Your task to perform on an android device: Go to network settings Image 0: 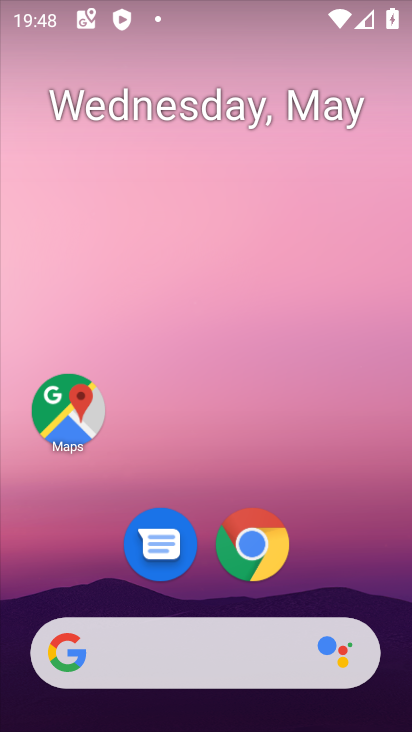
Step 0: drag from (212, 9) to (217, 636)
Your task to perform on an android device: Go to network settings Image 1: 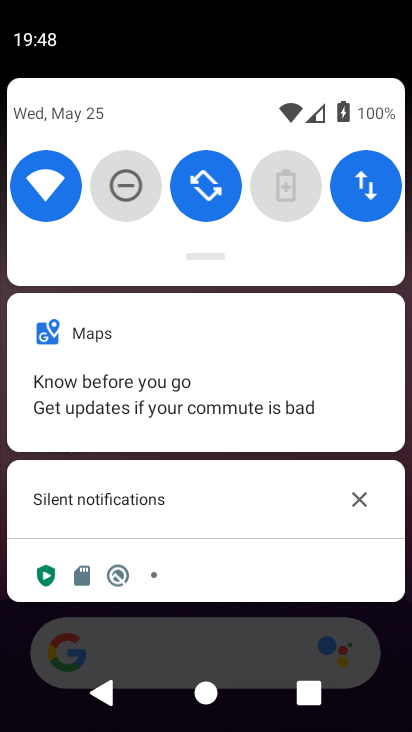
Step 1: click (375, 177)
Your task to perform on an android device: Go to network settings Image 2: 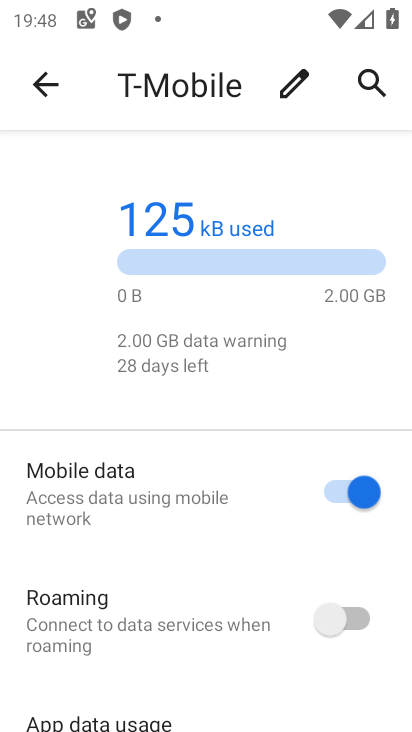
Step 2: task complete